Your task to perform on an android device: show emergency info Image 0: 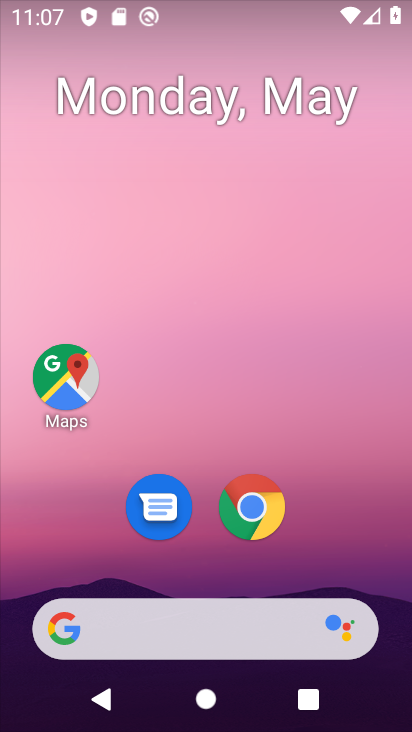
Step 0: drag from (340, 477) to (340, 257)
Your task to perform on an android device: show emergency info Image 1: 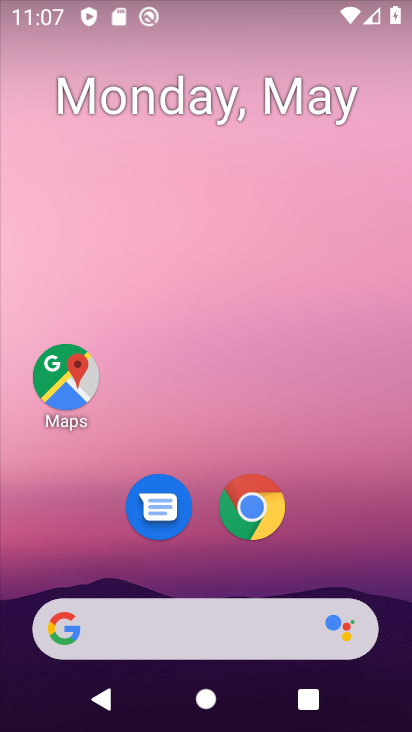
Step 1: drag from (354, 505) to (358, 254)
Your task to perform on an android device: show emergency info Image 2: 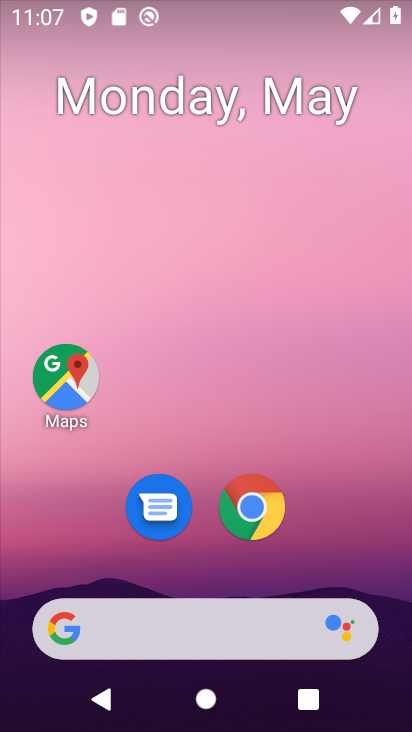
Step 2: drag from (318, 517) to (332, 211)
Your task to perform on an android device: show emergency info Image 3: 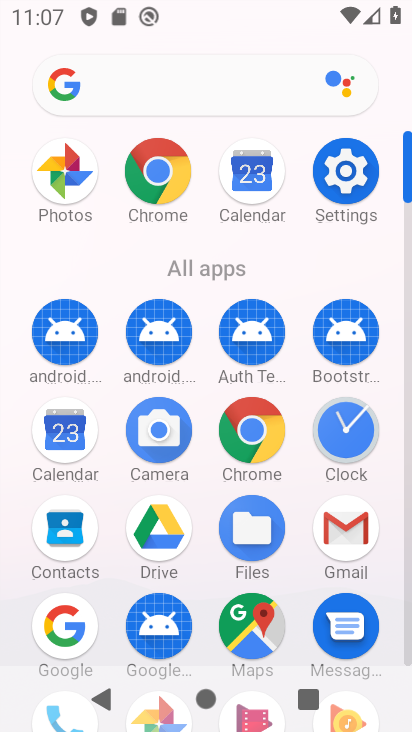
Step 3: click (332, 144)
Your task to perform on an android device: show emergency info Image 4: 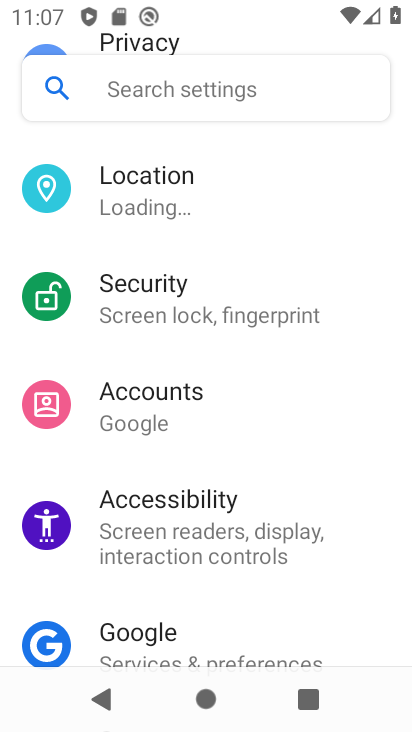
Step 4: drag from (247, 606) to (281, 123)
Your task to perform on an android device: show emergency info Image 5: 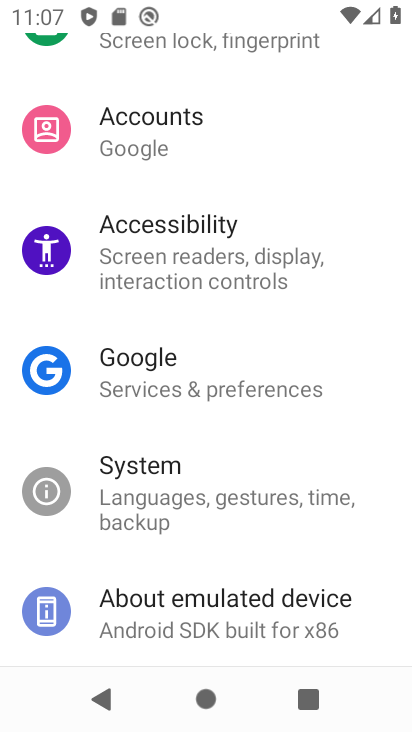
Step 5: click (235, 597)
Your task to perform on an android device: show emergency info Image 6: 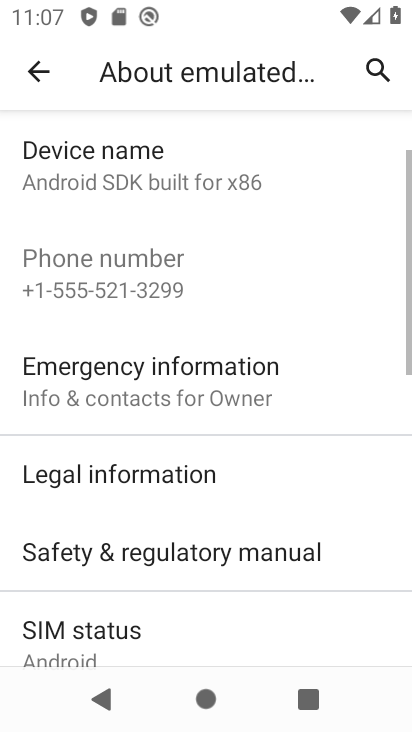
Step 6: click (166, 385)
Your task to perform on an android device: show emergency info Image 7: 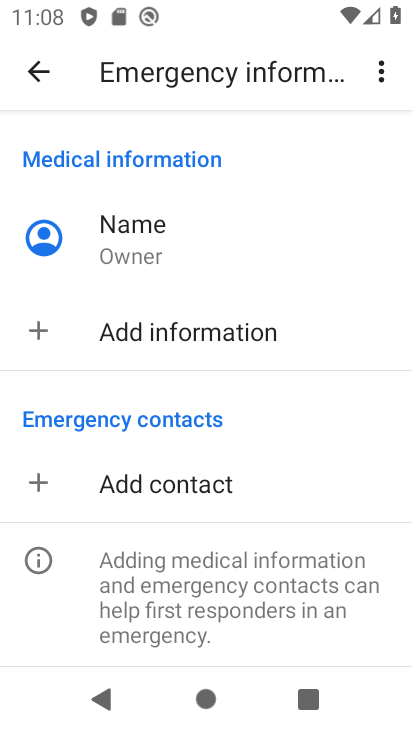
Step 7: task complete